Your task to perform on an android device: change the upload size in google photos Image 0: 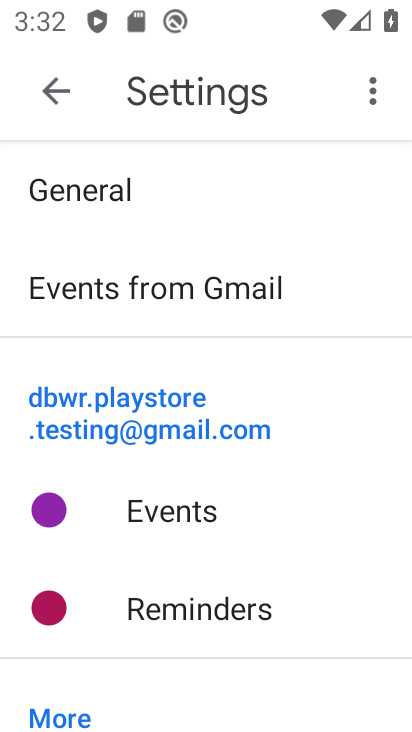
Step 0: press home button
Your task to perform on an android device: change the upload size in google photos Image 1: 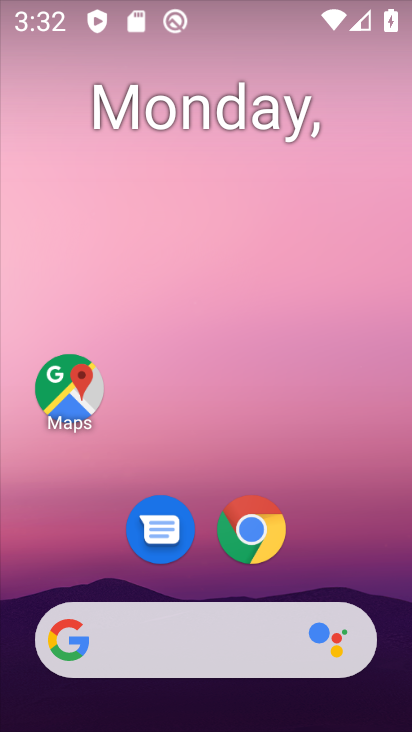
Step 1: drag from (290, 550) to (368, 44)
Your task to perform on an android device: change the upload size in google photos Image 2: 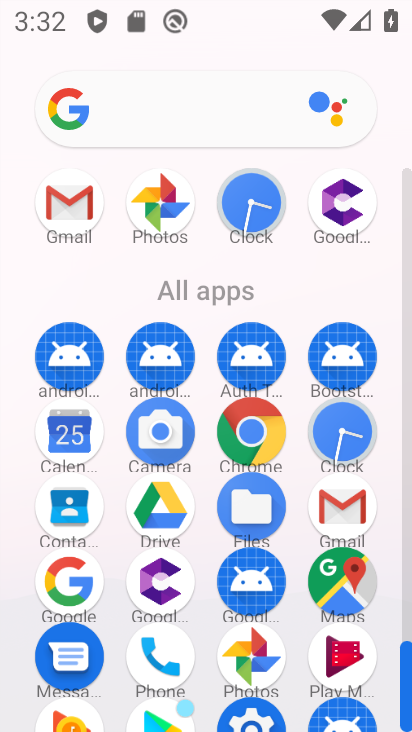
Step 2: click (237, 660)
Your task to perform on an android device: change the upload size in google photos Image 3: 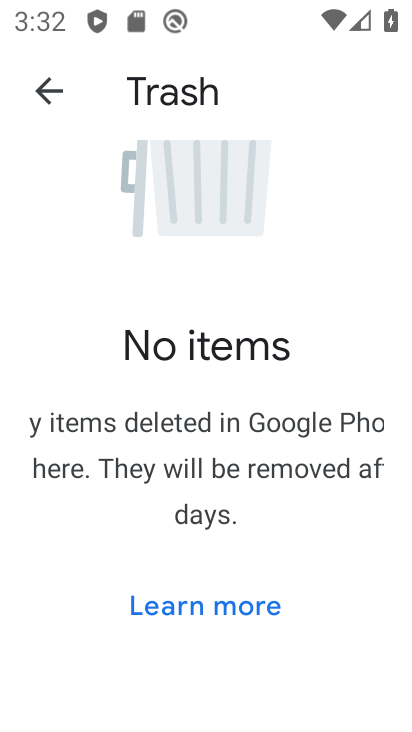
Step 3: click (49, 88)
Your task to perform on an android device: change the upload size in google photos Image 4: 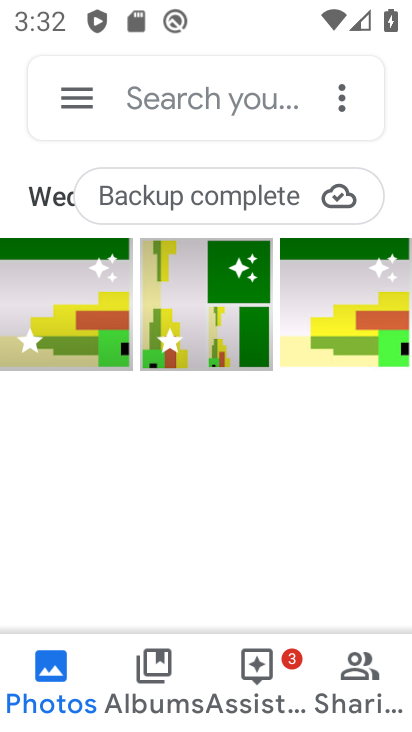
Step 4: click (49, 90)
Your task to perform on an android device: change the upload size in google photos Image 5: 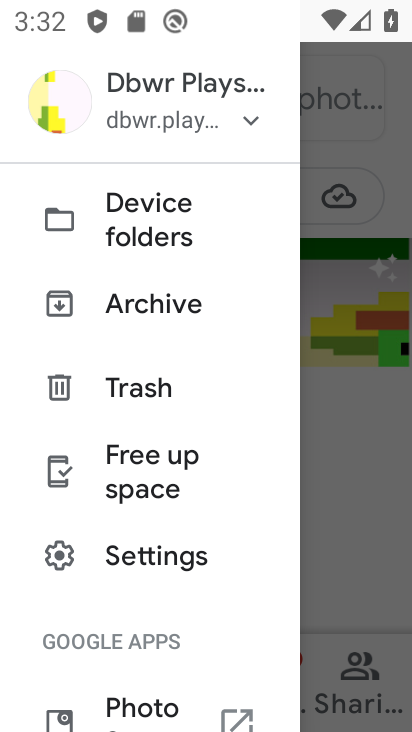
Step 5: click (161, 582)
Your task to perform on an android device: change the upload size in google photos Image 6: 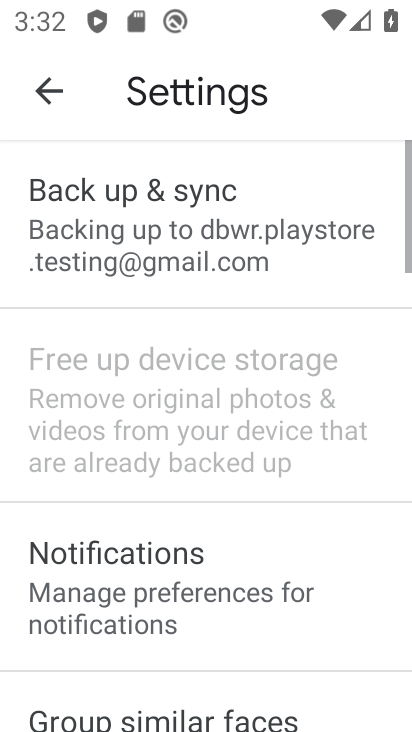
Step 6: click (165, 249)
Your task to perform on an android device: change the upload size in google photos Image 7: 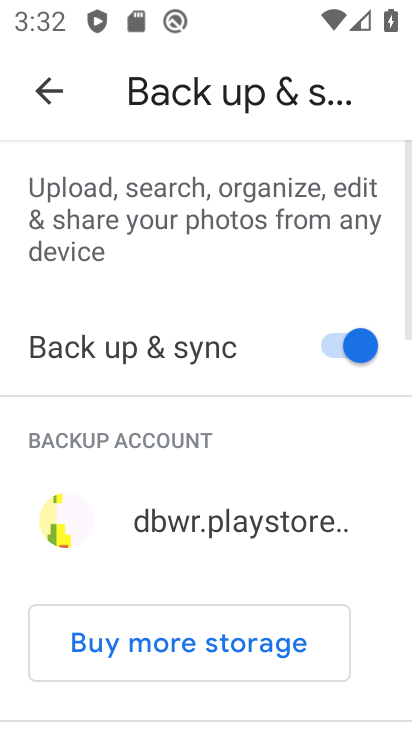
Step 7: drag from (216, 510) to (268, 160)
Your task to perform on an android device: change the upload size in google photos Image 8: 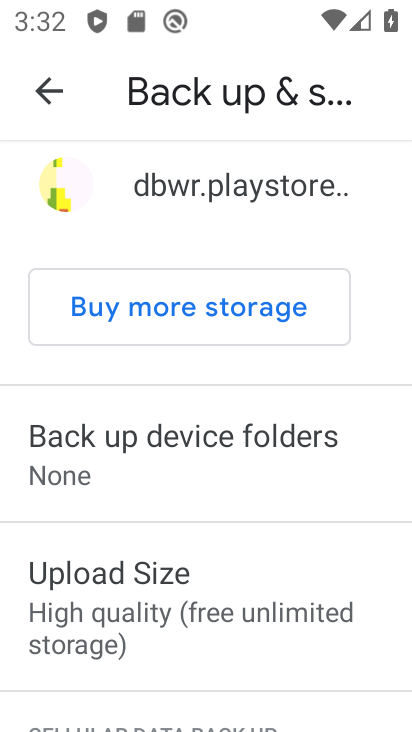
Step 8: click (161, 590)
Your task to perform on an android device: change the upload size in google photos Image 9: 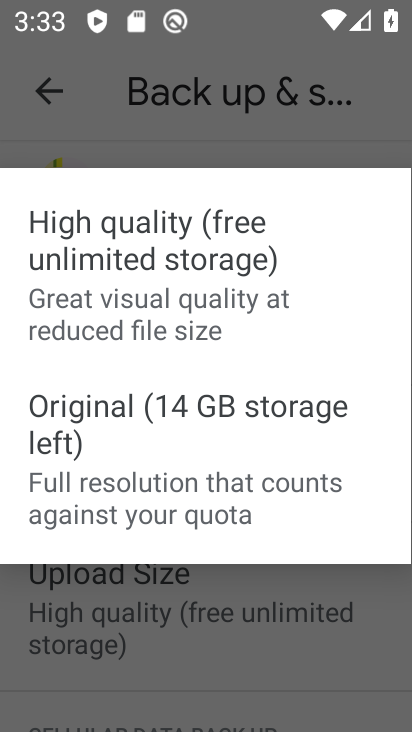
Step 9: click (119, 445)
Your task to perform on an android device: change the upload size in google photos Image 10: 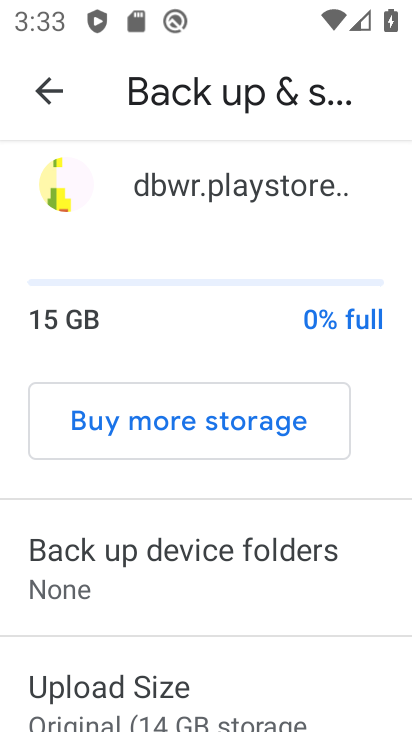
Step 10: task complete